Your task to perform on an android device: install app "Facebook" Image 0: 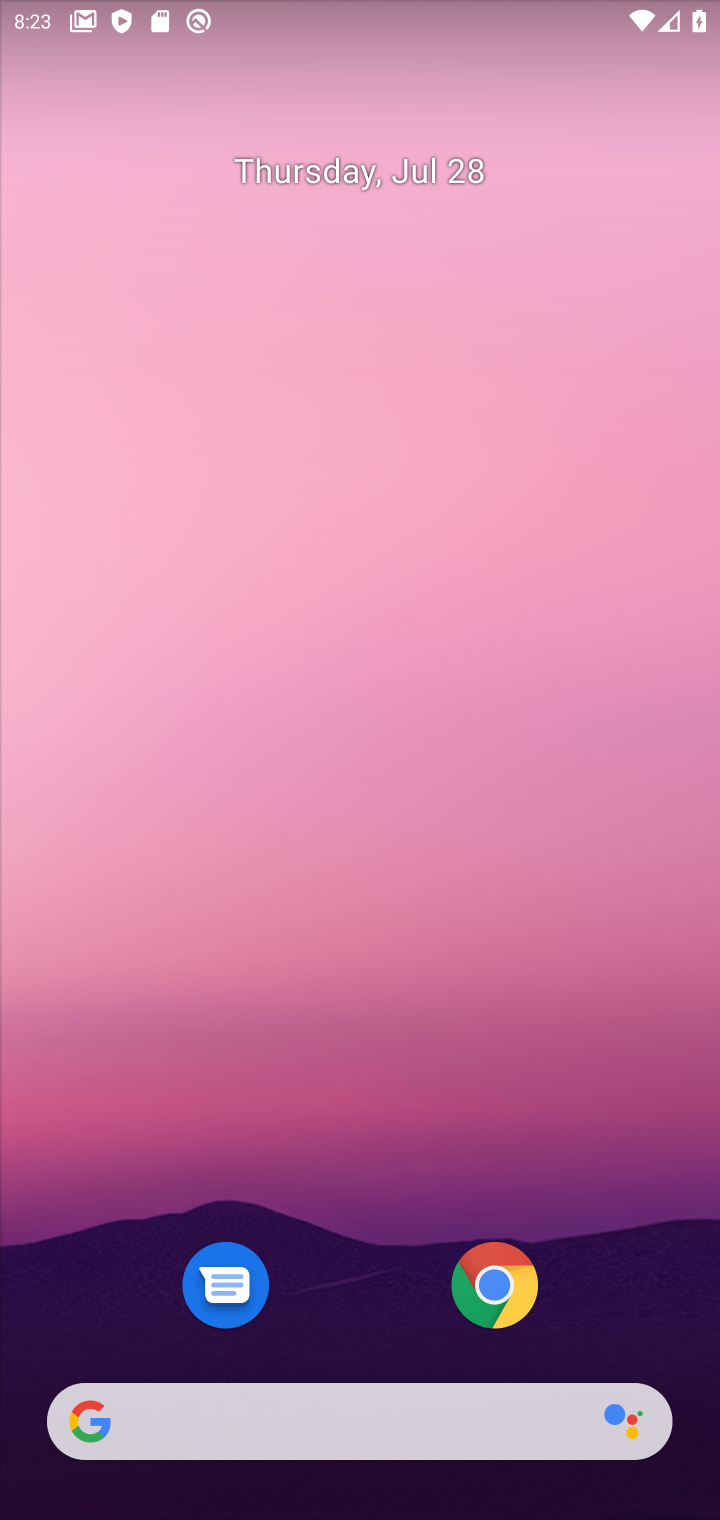
Step 0: press back button
Your task to perform on an android device: install app "Facebook" Image 1: 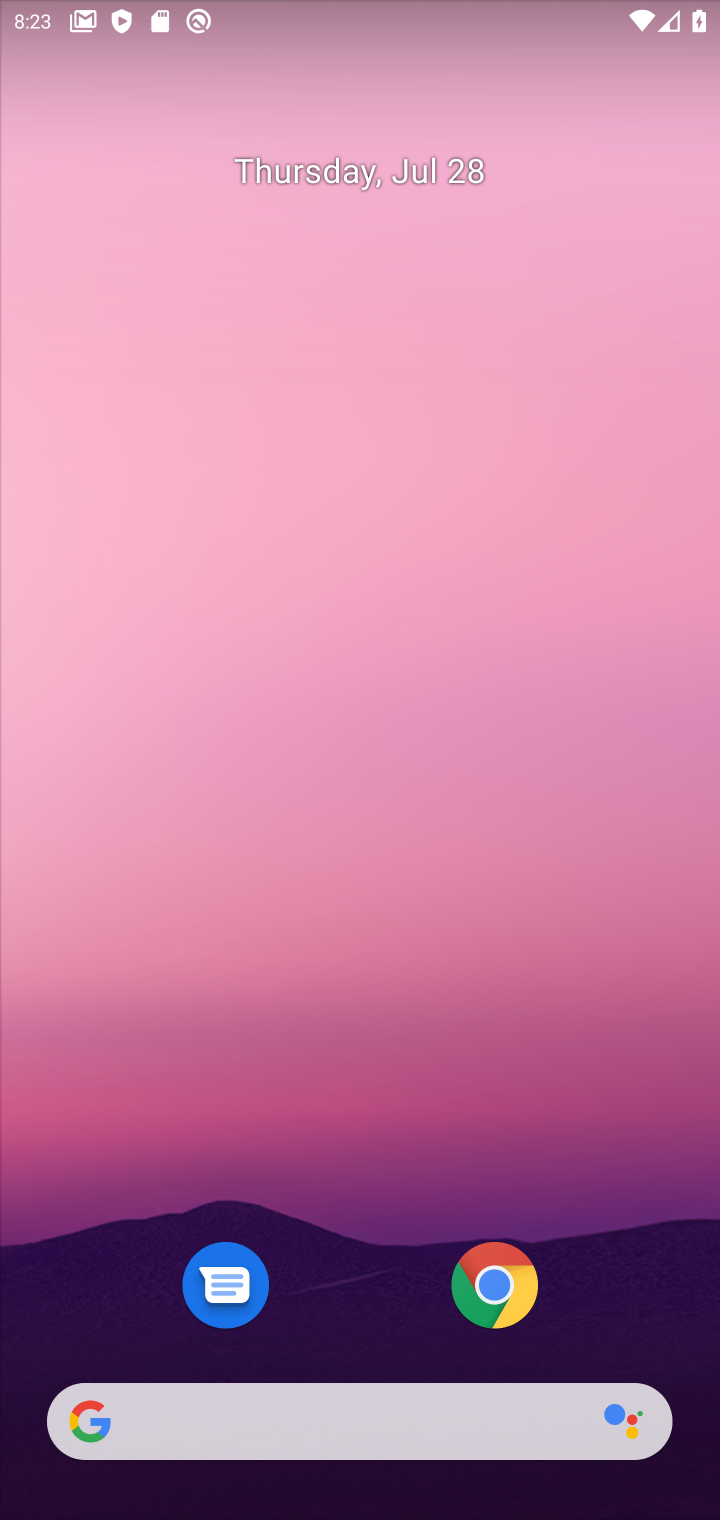
Step 1: drag from (387, 1430) to (458, 365)
Your task to perform on an android device: install app "Facebook" Image 2: 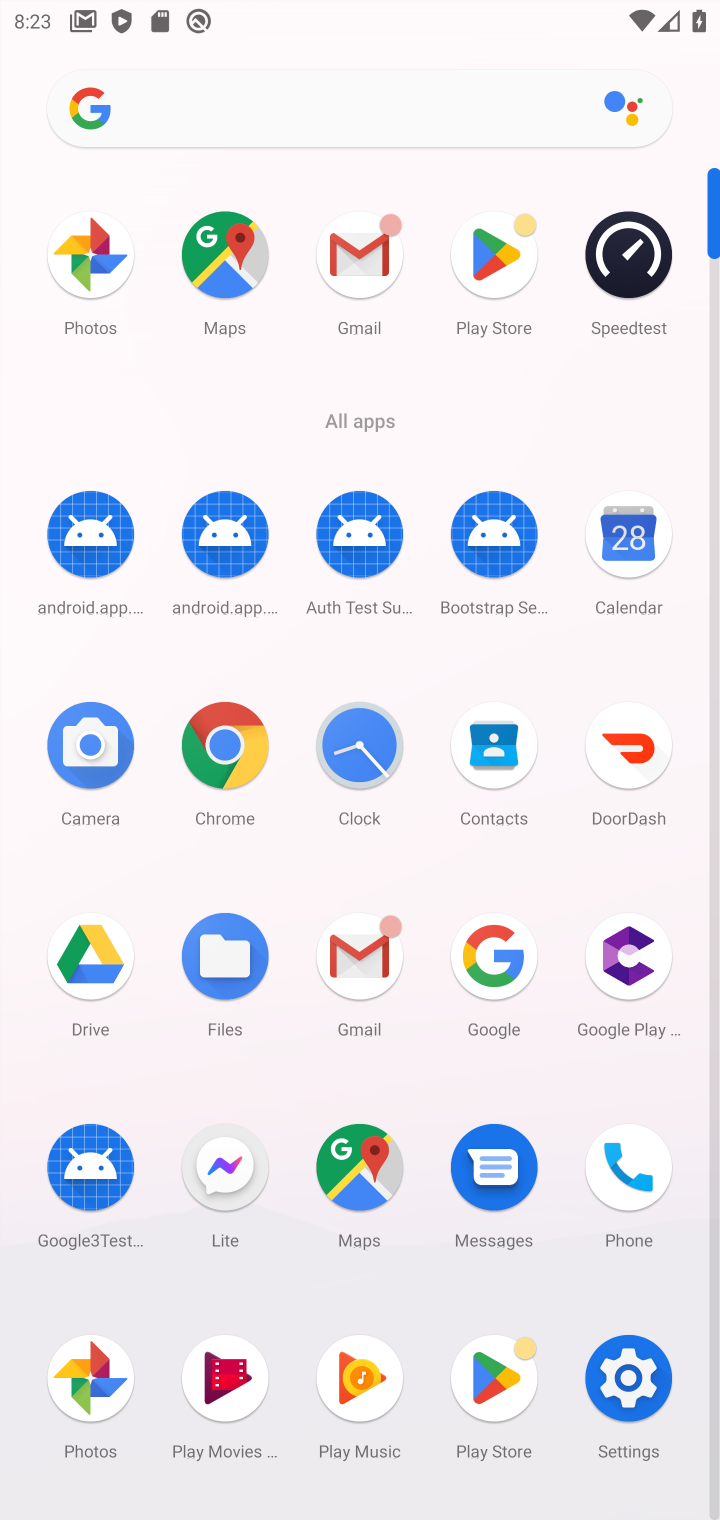
Step 2: click (510, 1384)
Your task to perform on an android device: install app "Facebook" Image 3: 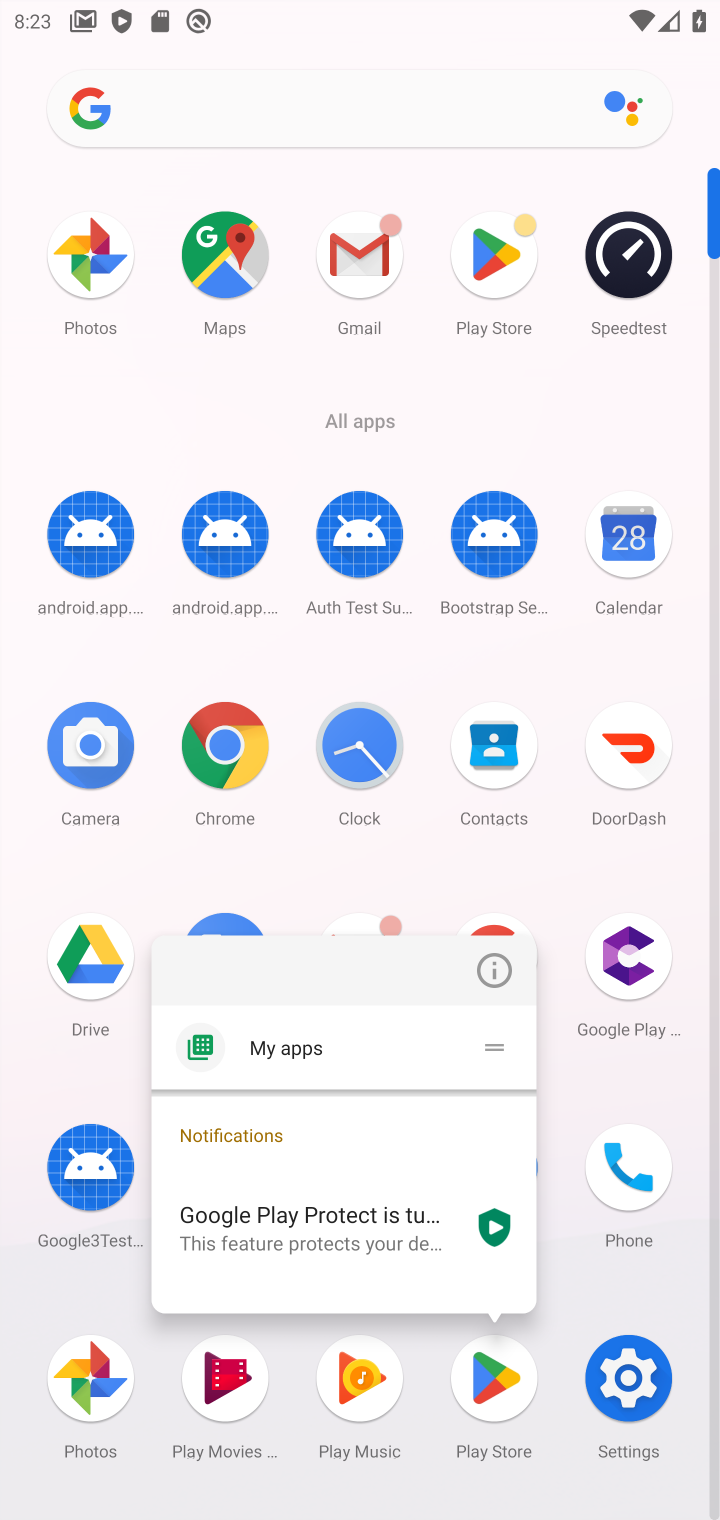
Step 3: click (510, 1384)
Your task to perform on an android device: install app "Facebook" Image 4: 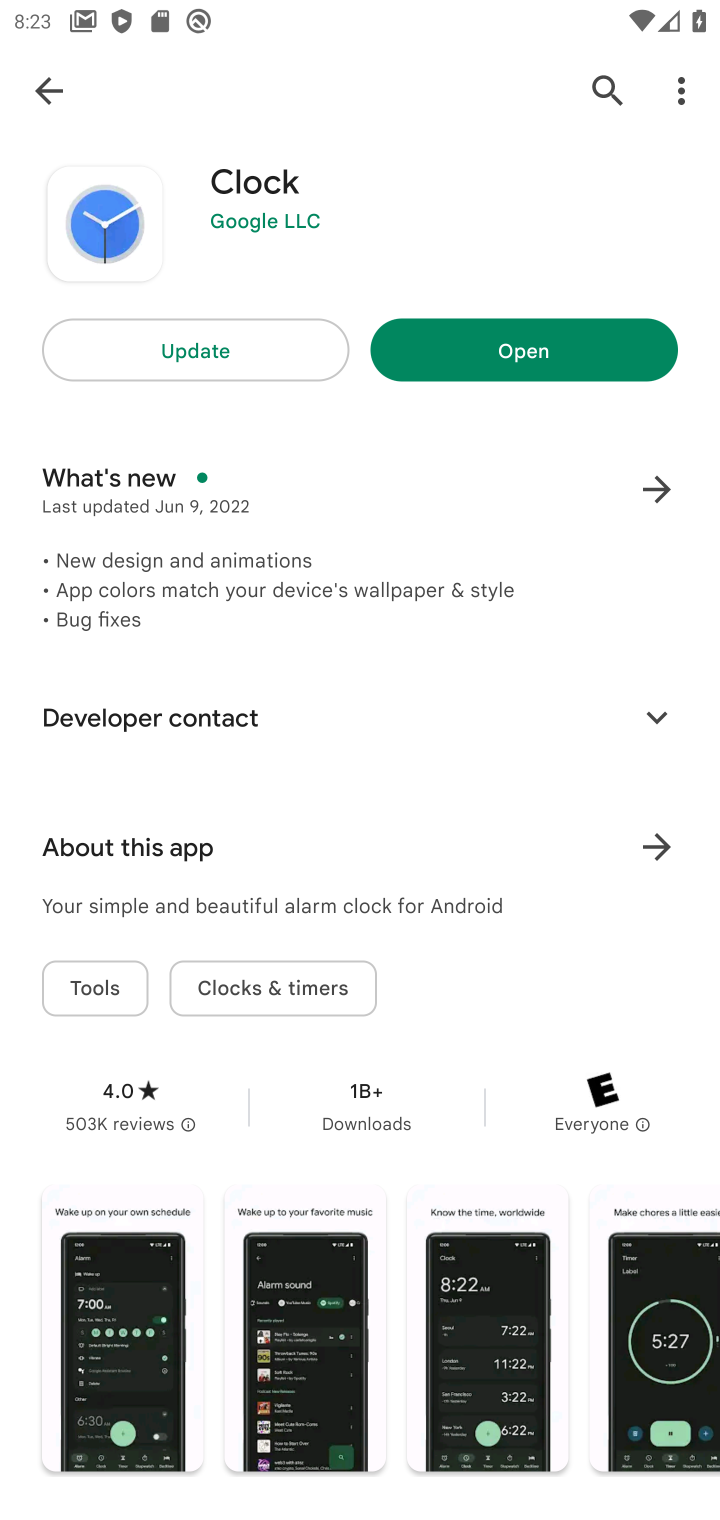
Step 4: click (598, 79)
Your task to perform on an android device: install app "Facebook" Image 5: 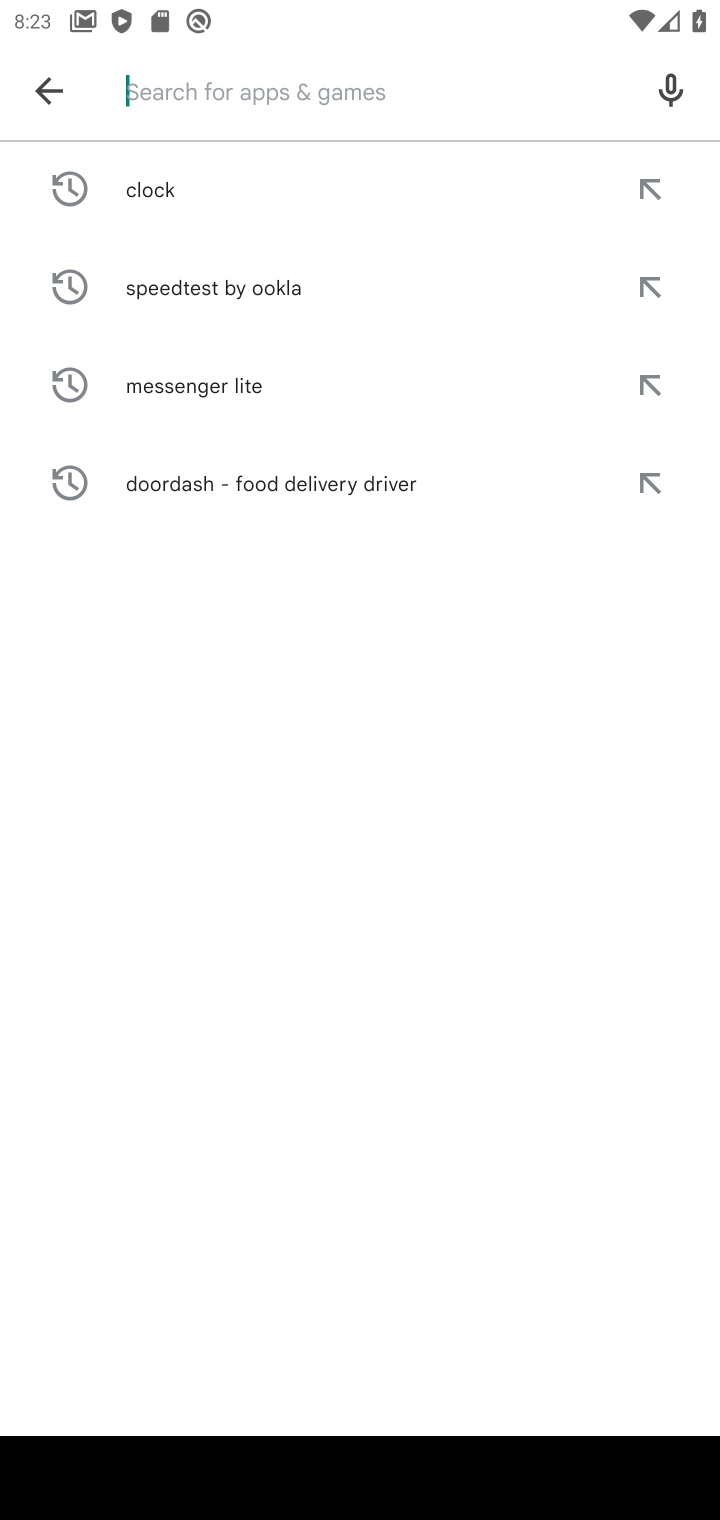
Step 5: type "facebook"
Your task to perform on an android device: install app "Facebook" Image 6: 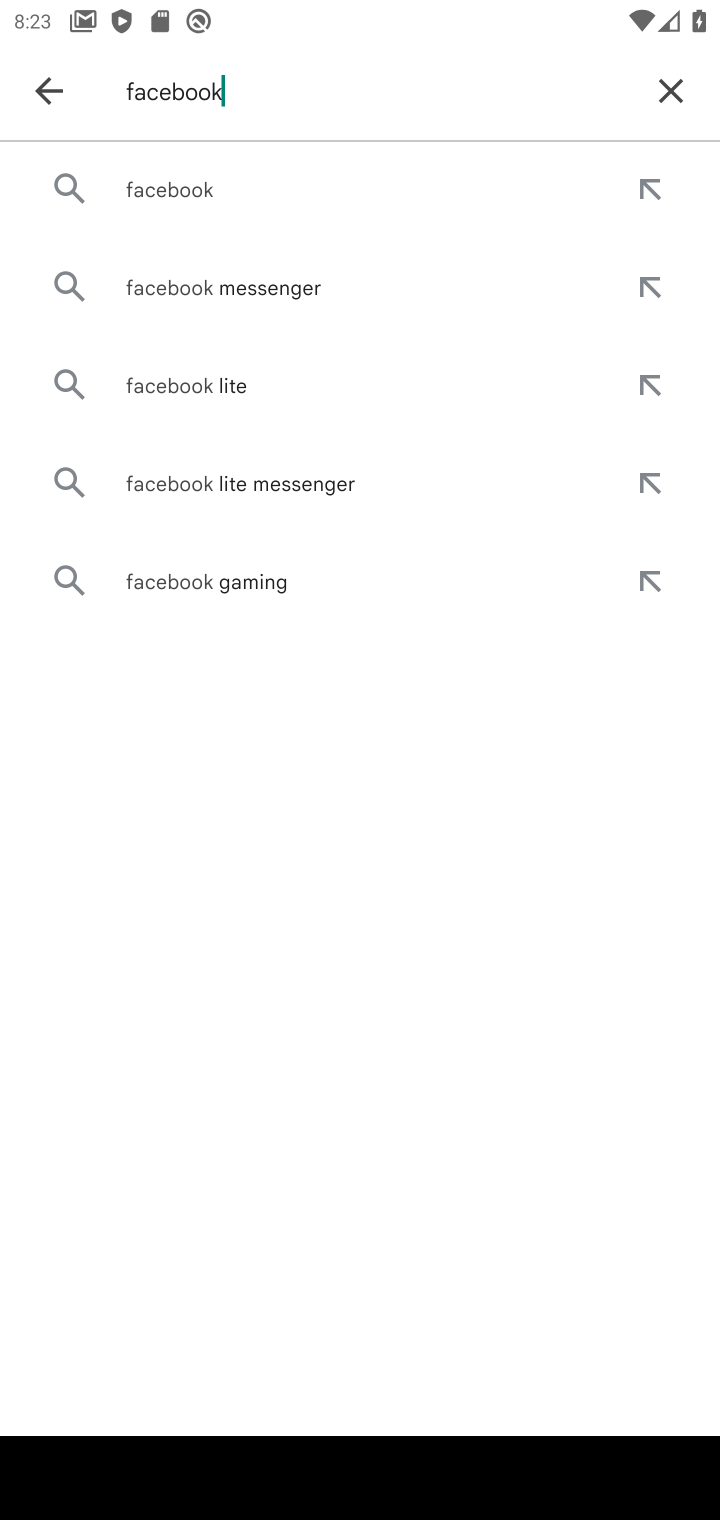
Step 6: click (267, 177)
Your task to perform on an android device: install app "Facebook" Image 7: 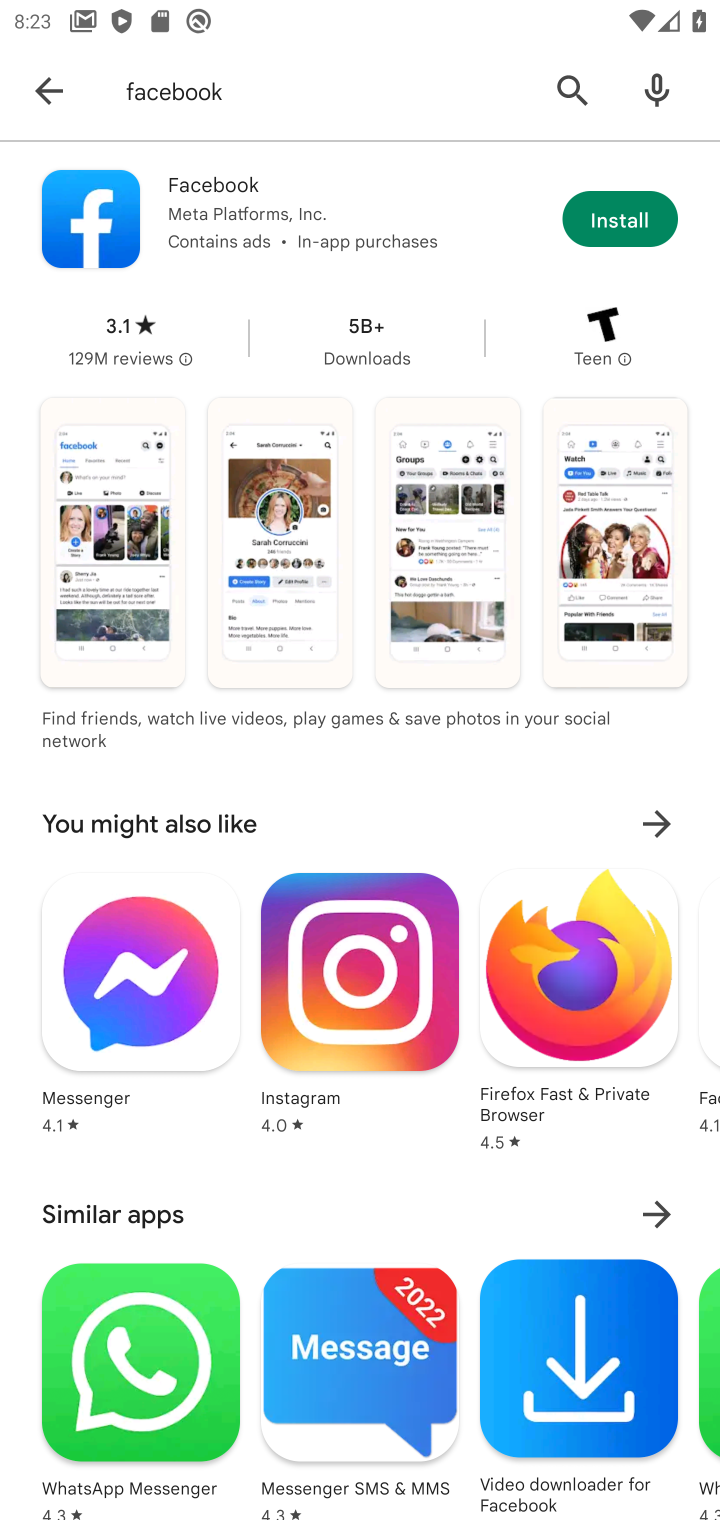
Step 7: click (639, 218)
Your task to perform on an android device: install app "Facebook" Image 8: 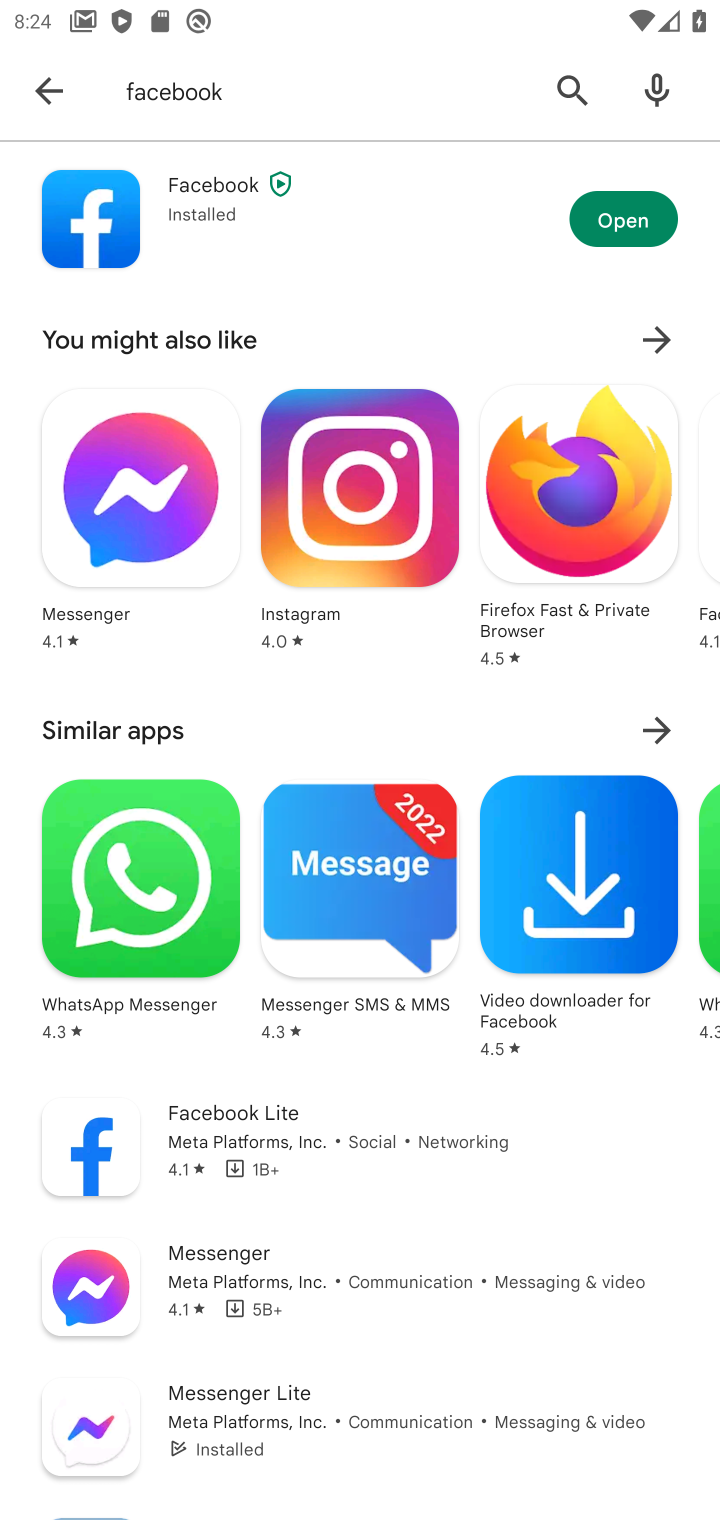
Step 8: task complete